Your task to perform on an android device: check storage Image 0: 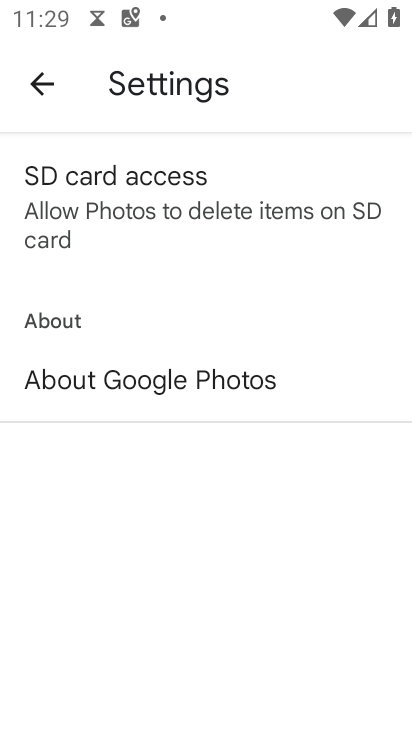
Step 0: press home button
Your task to perform on an android device: check storage Image 1: 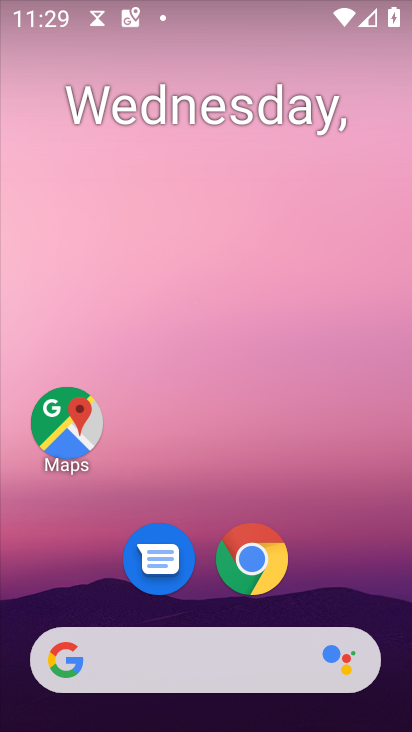
Step 1: drag from (346, 600) to (285, 188)
Your task to perform on an android device: check storage Image 2: 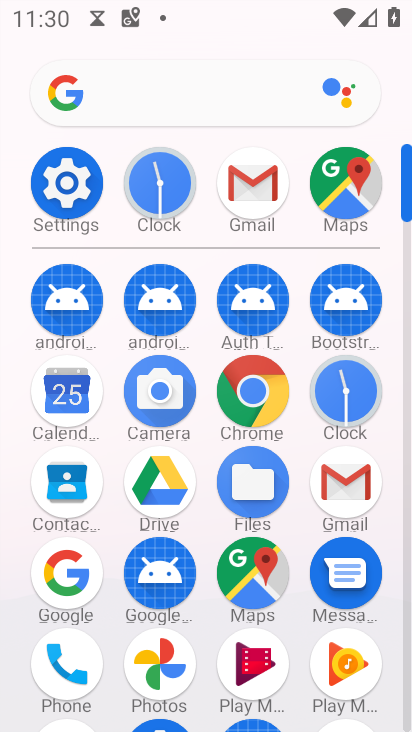
Step 2: click (71, 183)
Your task to perform on an android device: check storage Image 3: 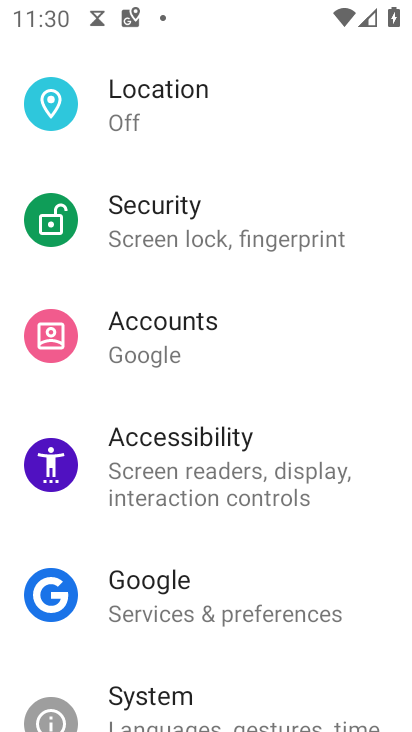
Step 3: drag from (201, 151) to (212, 422)
Your task to perform on an android device: check storage Image 4: 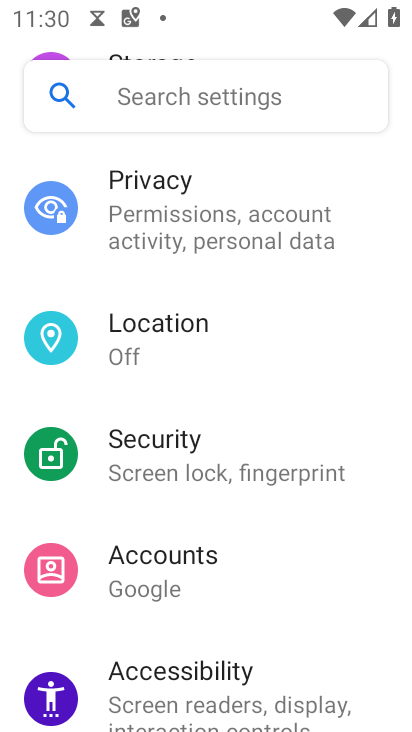
Step 4: drag from (208, 280) to (225, 540)
Your task to perform on an android device: check storage Image 5: 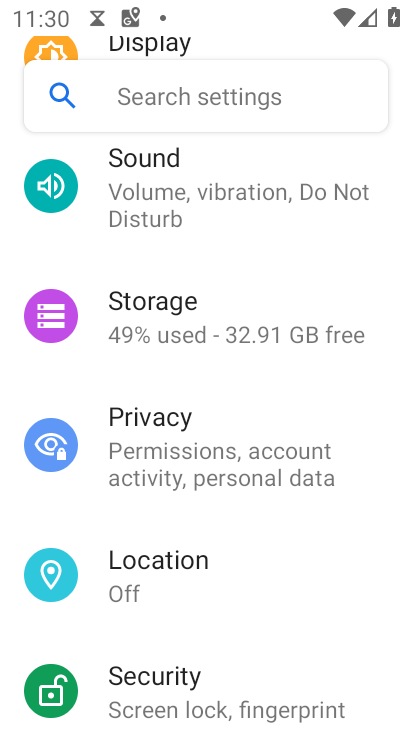
Step 5: click (244, 330)
Your task to perform on an android device: check storage Image 6: 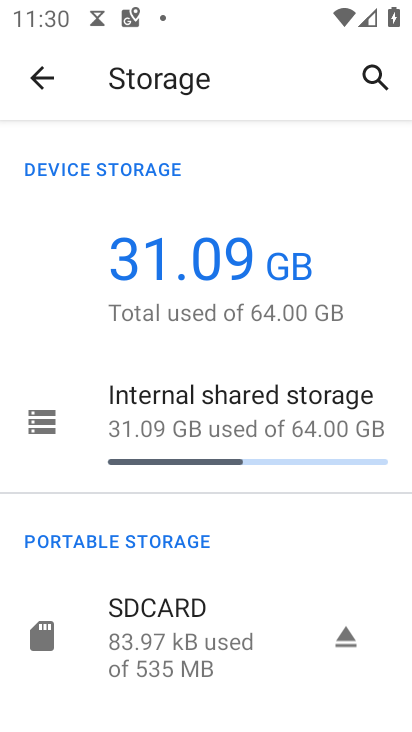
Step 6: task complete